Your task to perform on an android device: Open ESPN.com Image 0: 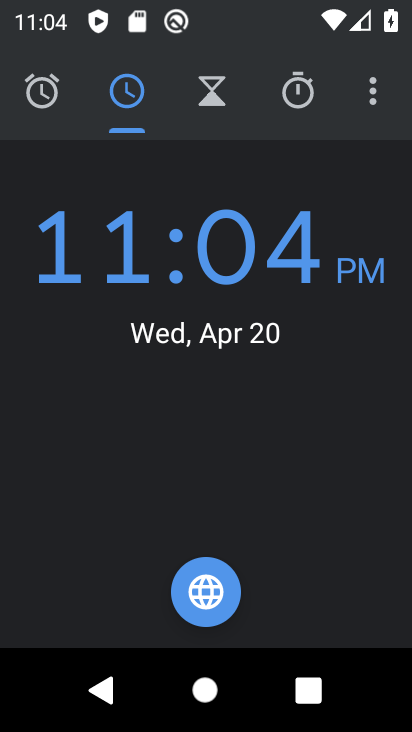
Step 0: press home button
Your task to perform on an android device: Open ESPN.com Image 1: 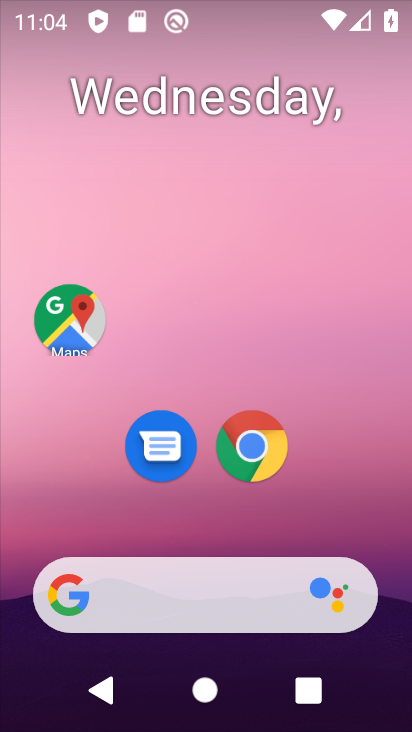
Step 1: click (256, 462)
Your task to perform on an android device: Open ESPN.com Image 2: 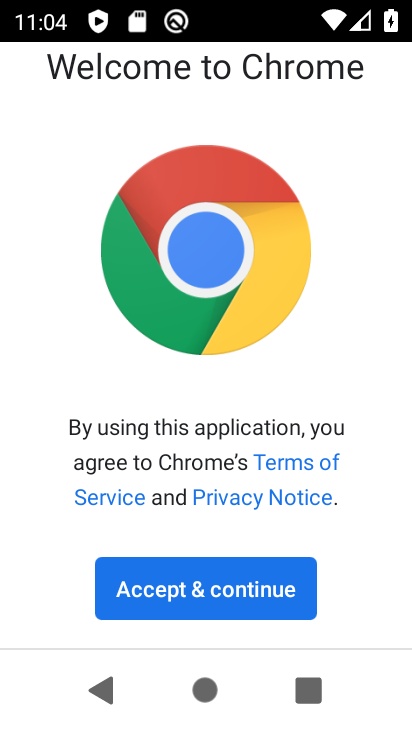
Step 2: click (165, 587)
Your task to perform on an android device: Open ESPN.com Image 3: 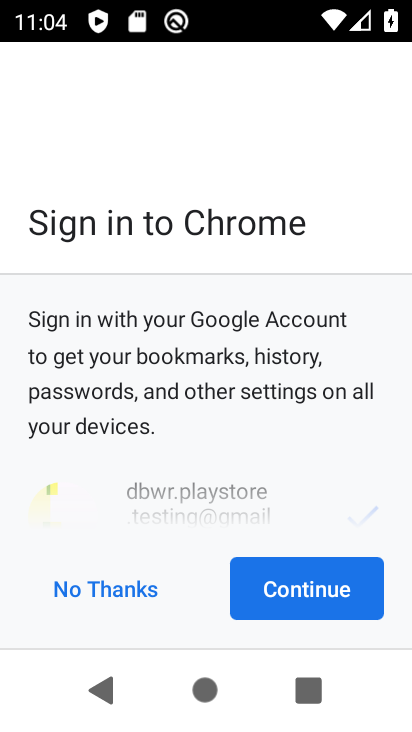
Step 3: click (277, 590)
Your task to perform on an android device: Open ESPN.com Image 4: 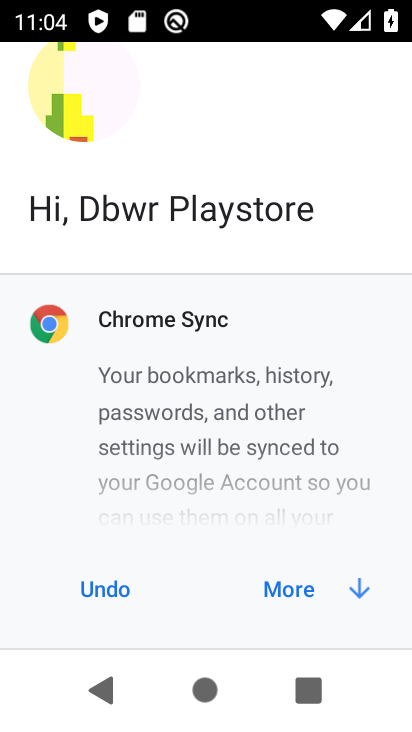
Step 4: click (277, 590)
Your task to perform on an android device: Open ESPN.com Image 5: 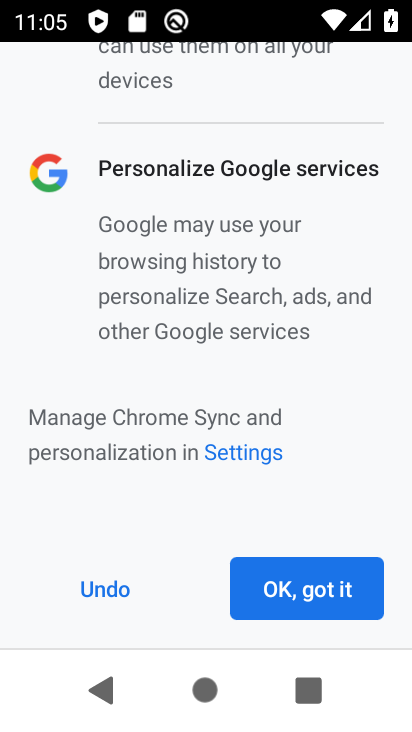
Step 5: click (277, 590)
Your task to perform on an android device: Open ESPN.com Image 6: 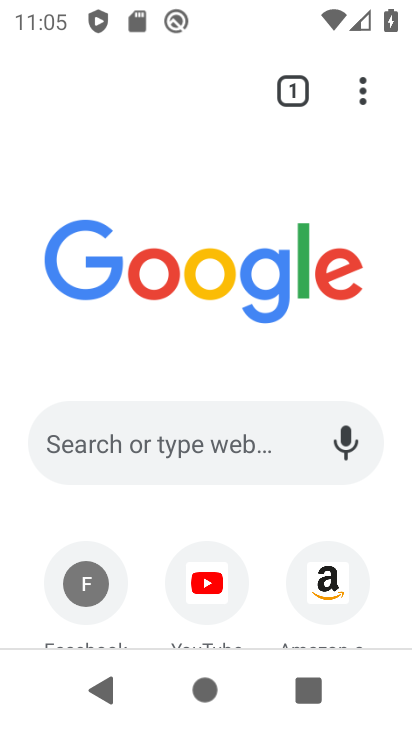
Step 6: drag from (157, 634) to (152, 381)
Your task to perform on an android device: Open ESPN.com Image 7: 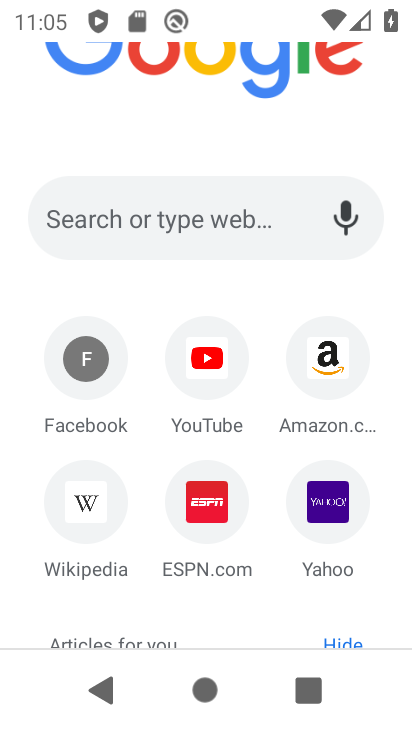
Step 7: click (211, 515)
Your task to perform on an android device: Open ESPN.com Image 8: 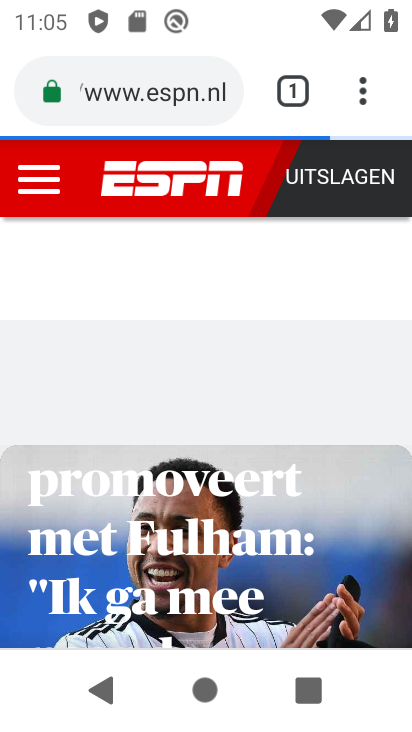
Step 8: task complete